Your task to perform on an android device: Clear the shopping cart on target.com. Search for logitech g933 on target.com, select the first entry, and add it to the cart. Image 0: 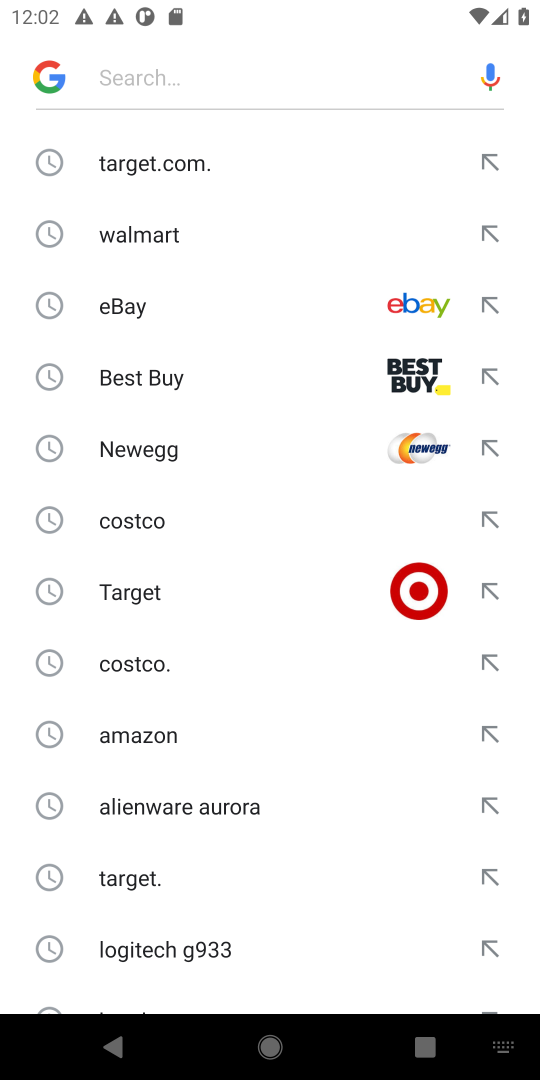
Step 0: click (121, 597)
Your task to perform on an android device: Clear the shopping cart on target.com. Search for logitech g933 on target.com, select the first entry, and add it to the cart. Image 1: 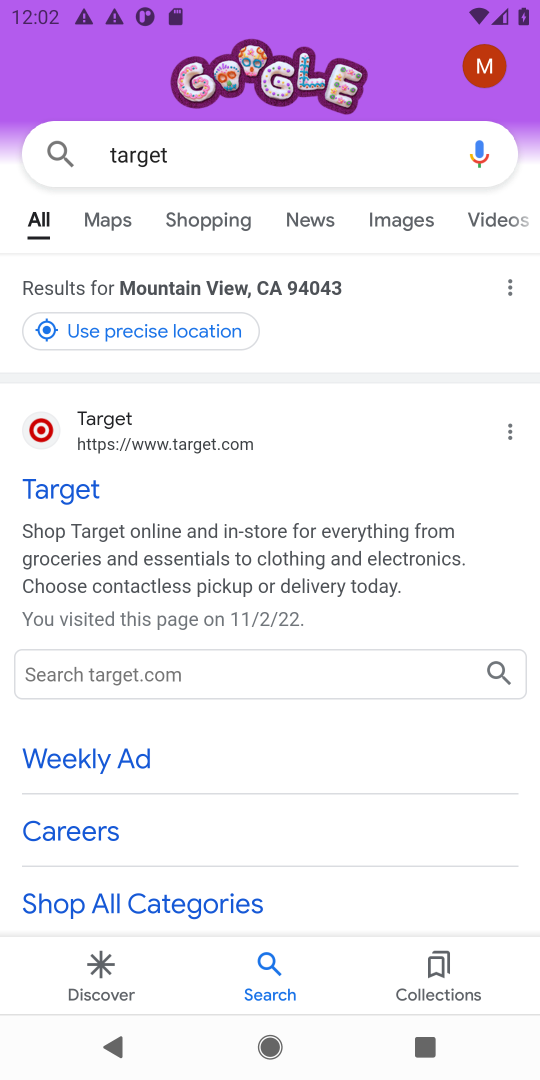
Step 1: click (80, 489)
Your task to perform on an android device: Clear the shopping cart on target.com. Search for logitech g933 on target.com, select the first entry, and add it to the cart. Image 2: 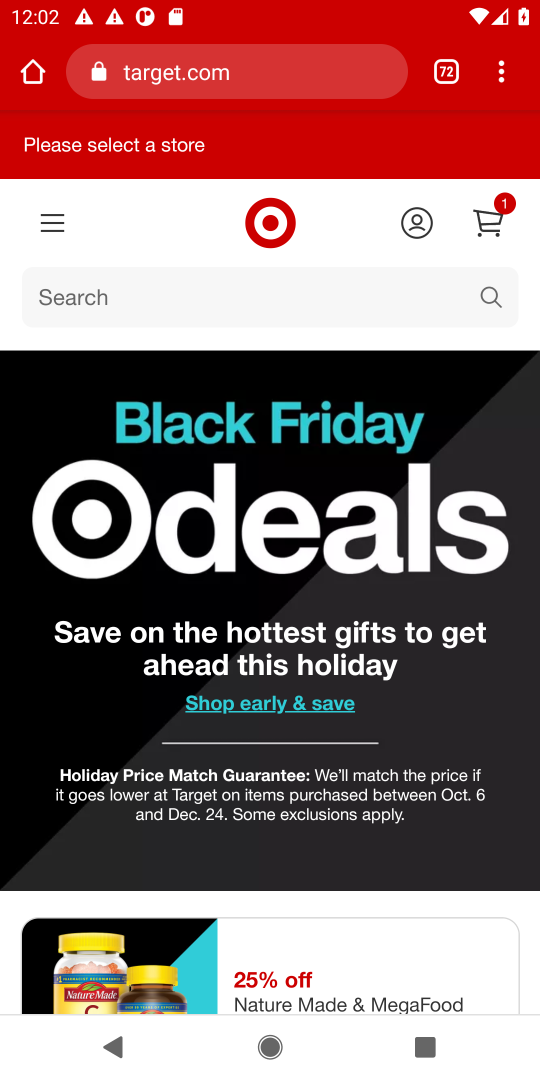
Step 2: click (500, 209)
Your task to perform on an android device: Clear the shopping cart on target.com. Search for logitech g933 on target.com, select the first entry, and add it to the cart. Image 3: 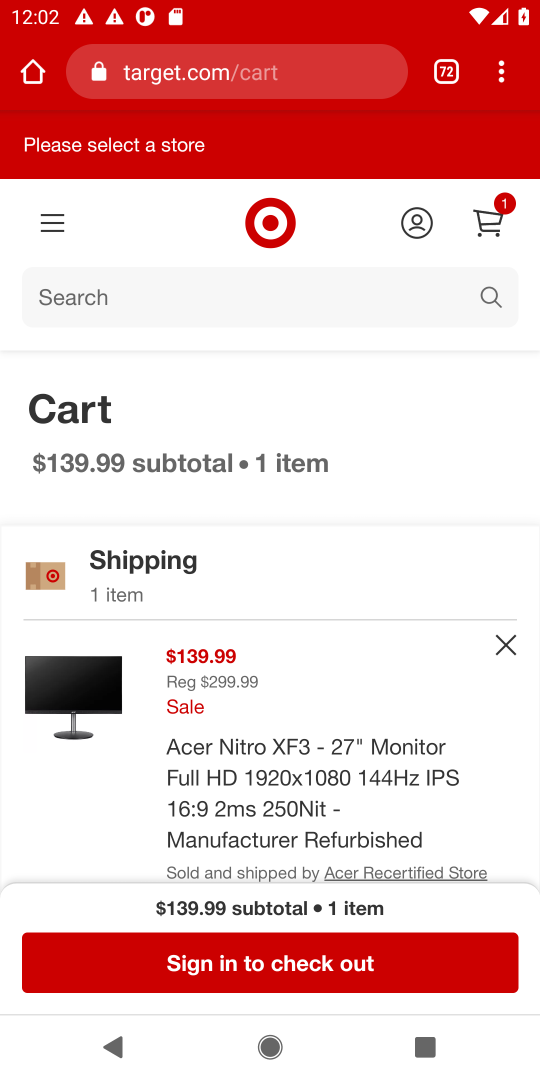
Step 3: click (512, 637)
Your task to perform on an android device: Clear the shopping cart on target.com. Search for logitech g933 on target.com, select the first entry, and add it to the cart. Image 4: 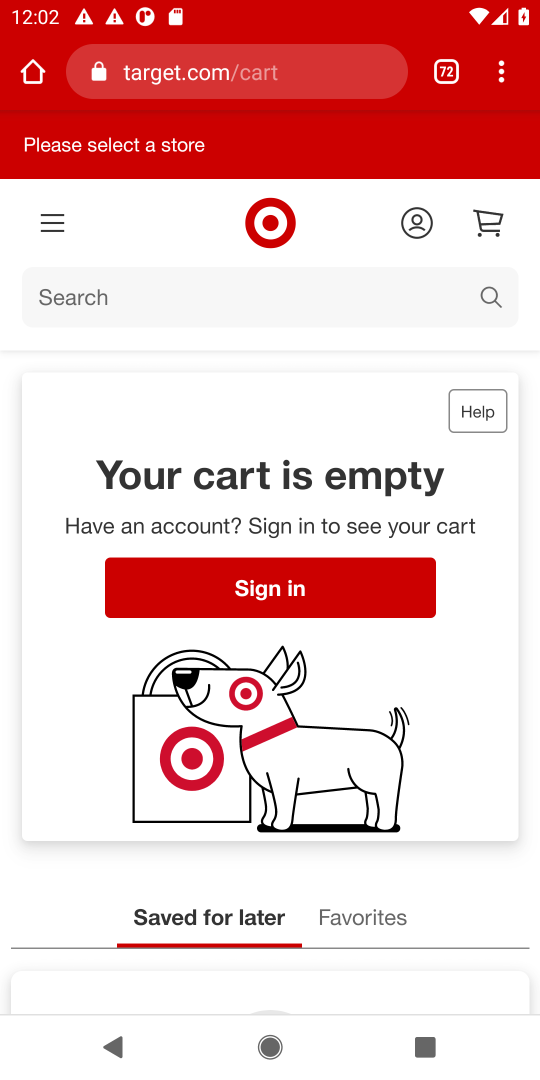
Step 4: click (129, 306)
Your task to perform on an android device: Clear the shopping cart on target.com. Search for logitech g933 on target.com, select the first entry, and add it to the cart. Image 5: 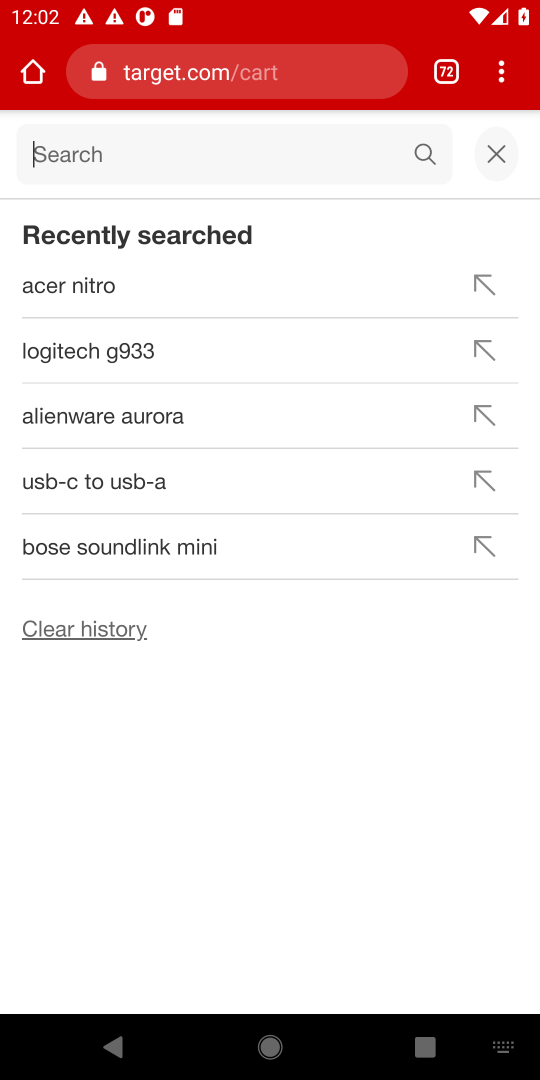
Step 5: type "logitech g933 "
Your task to perform on an android device: Clear the shopping cart on target.com. Search for logitech g933 on target.com, select the first entry, and add it to the cart. Image 6: 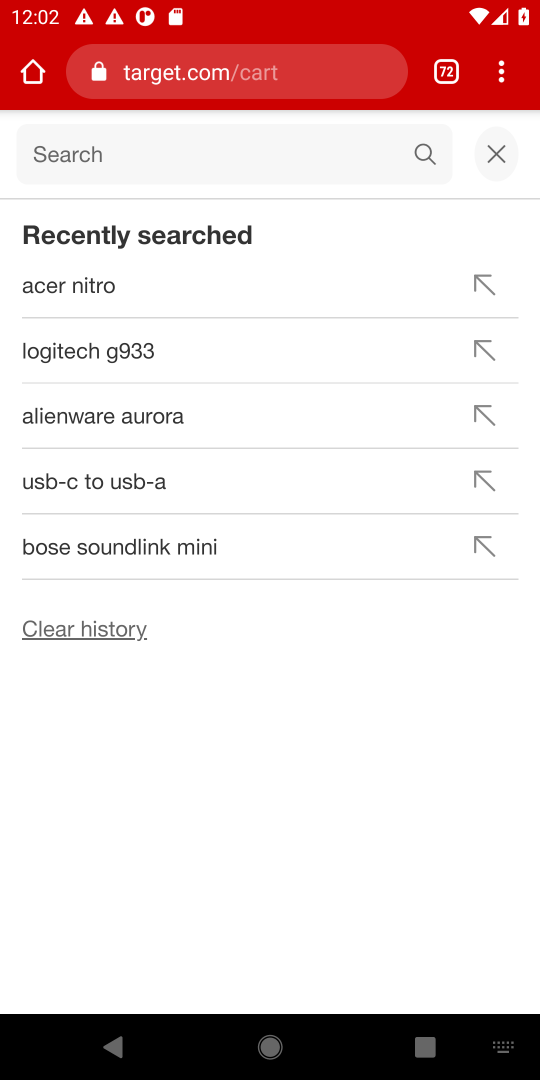
Step 6: click (68, 152)
Your task to perform on an android device: Clear the shopping cart on target.com. Search for logitech g933 on target.com, select the first entry, and add it to the cart. Image 7: 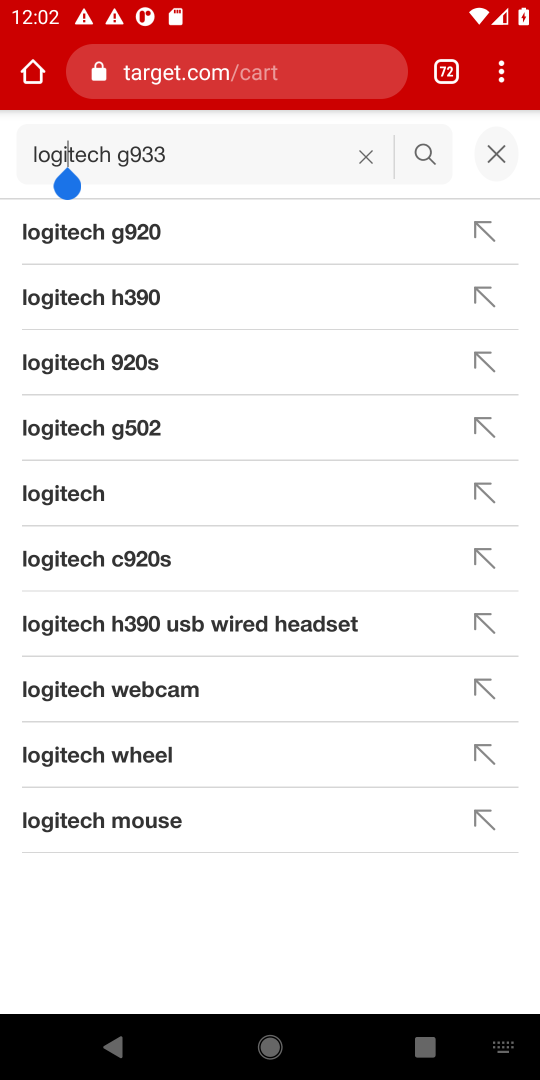
Step 7: press enter
Your task to perform on an android device: Clear the shopping cart on target.com. Search for logitech g933 on target.com, select the first entry, and add it to the cart. Image 8: 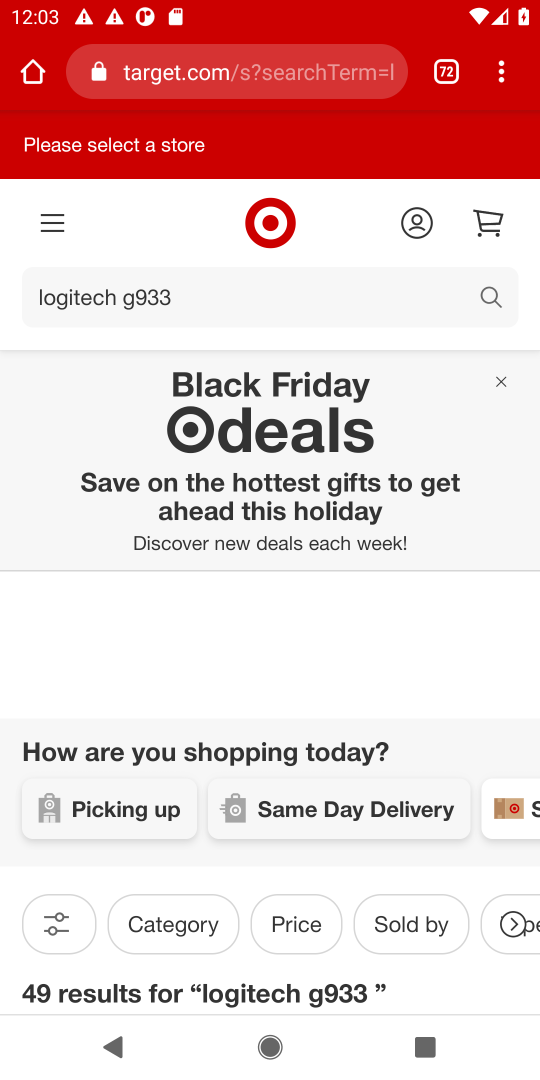
Step 8: task complete